Your task to perform on an android device: Go to location settings Image 0: 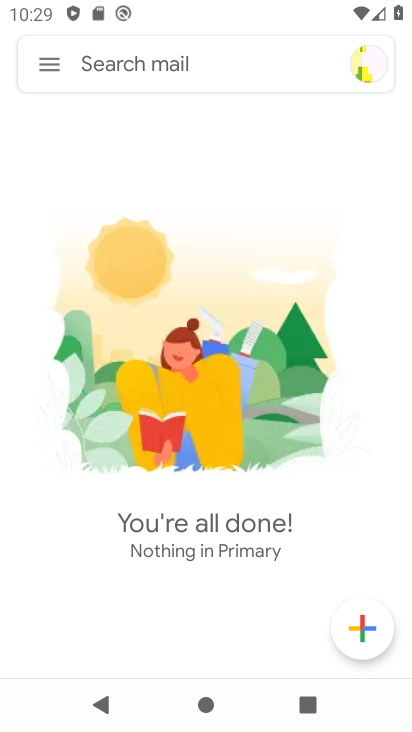
Step 0: press back button
Your task to perform on an android device: Go to location settings Image 1: 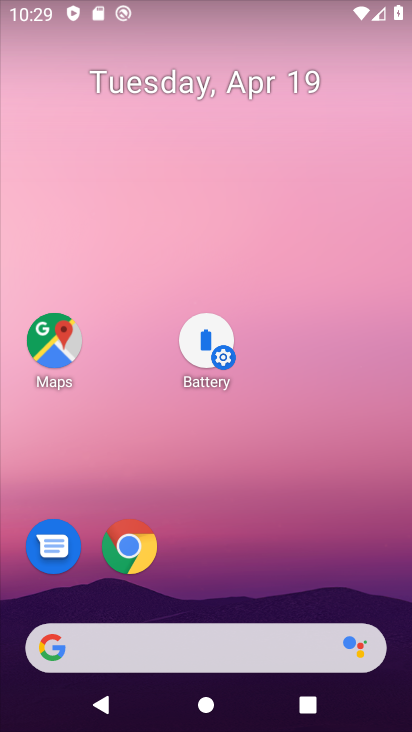
Step 1: drag from (210, 595) to (300, 55)
Your task to perform on an android device: Go to location settings Image 2: 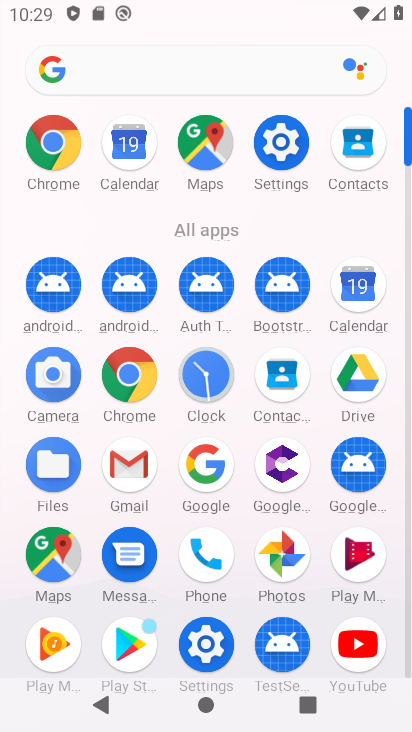
Step 2: click (291, 148)
Your task to perform on an android device: Go to location settings Image 3: 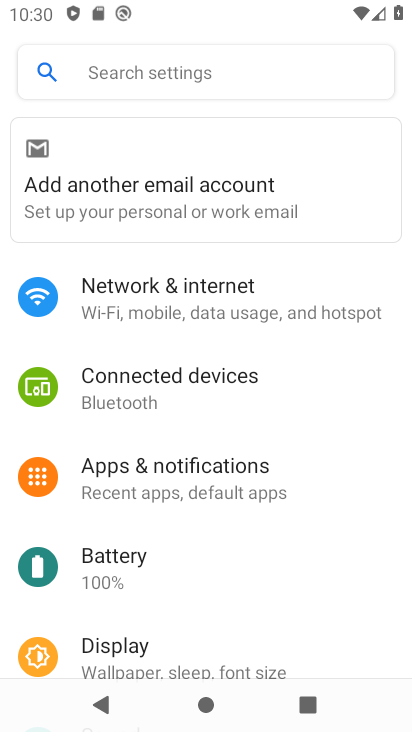
Step 3: drag from (133, 627) to (309, 166)
Your task to perform on an android device: Go to location settings Image 4: 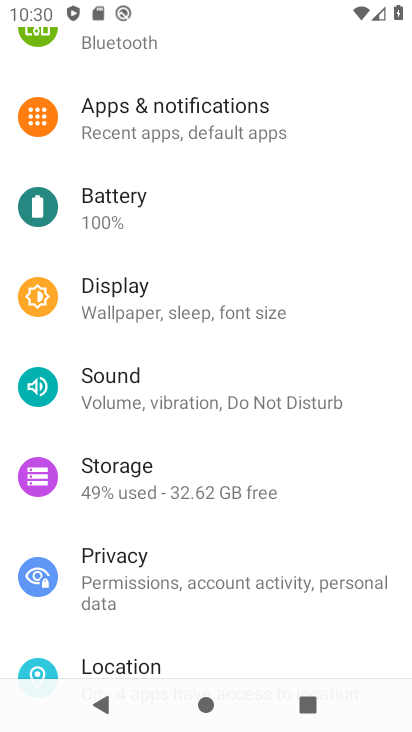
Step 4: click (118, 659)
Your task to perform on an android device: Go to location settings Image 5: 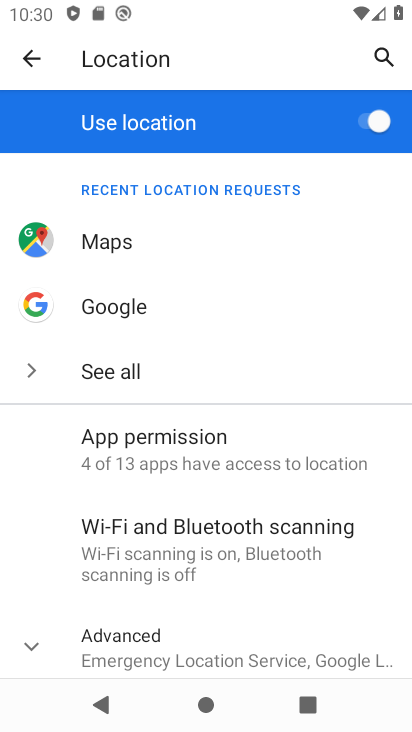
Step 5: task complete